Your task to perform on an android device: What's the weather going to be tomorrow? Image 0: 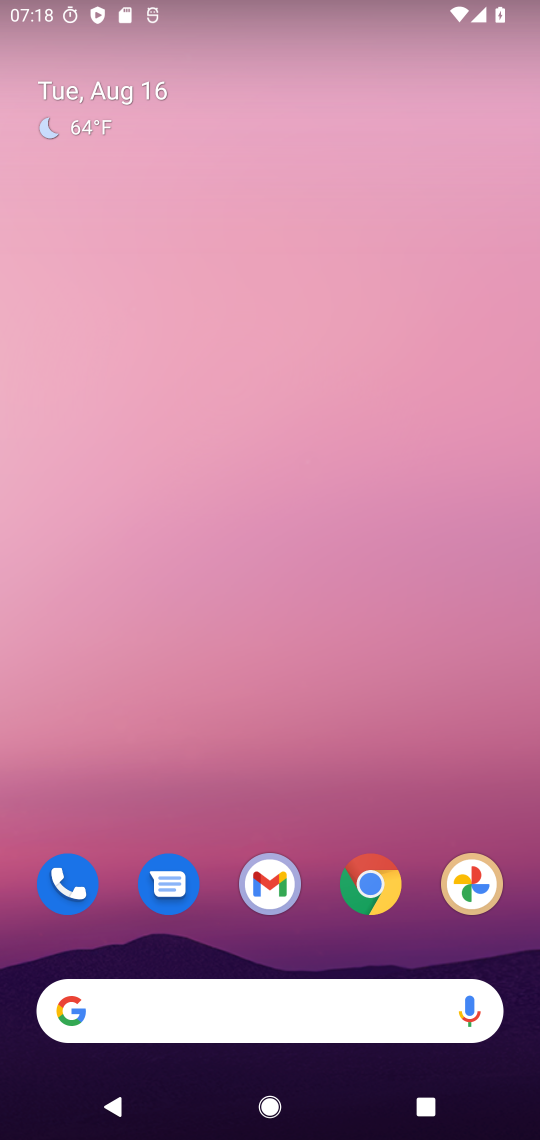
Step 0: click (62, 1016)
Your task to perform on an android device: What's the weather going to be tomorrow? Image 1: 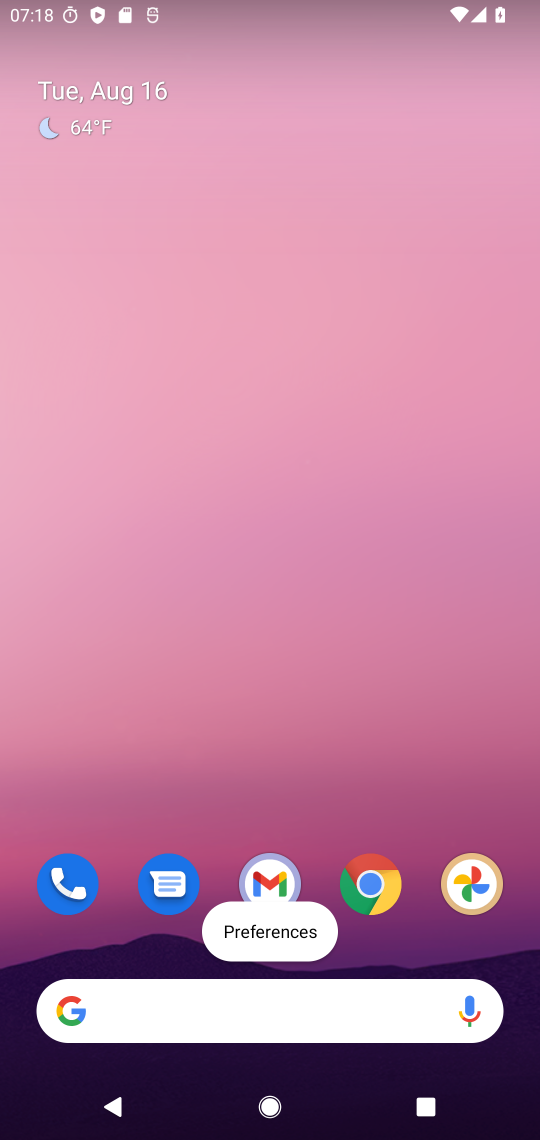
Step 1: click (62, 1015)
Your task to perform on an android device: What's the weather going to be tomorrow? Image 2: 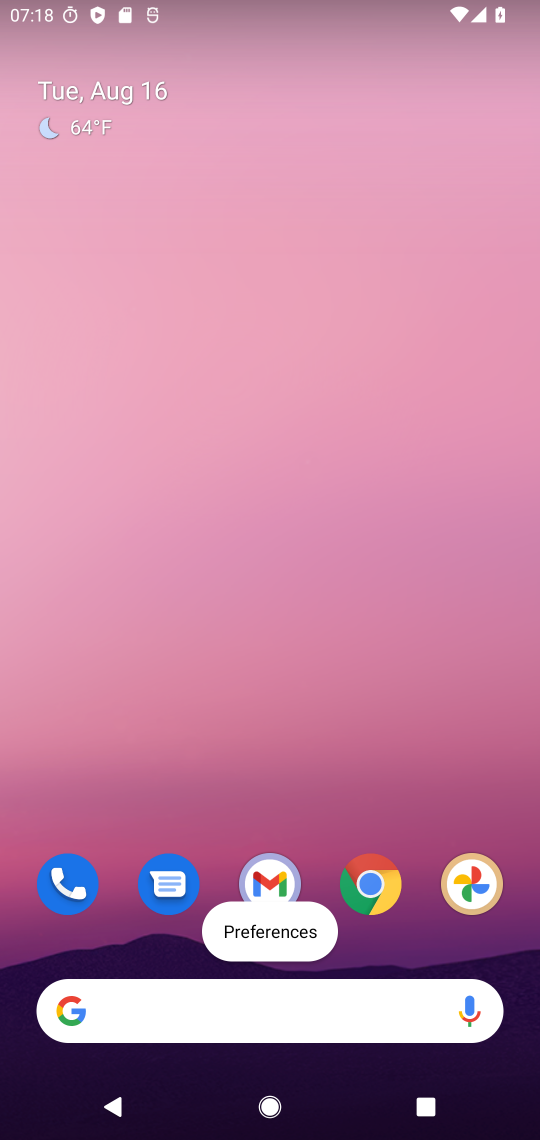
Step 2: click (59, 1006)
Your task to perform on an android device: What's the weather going to be tomorrow? Image 3: 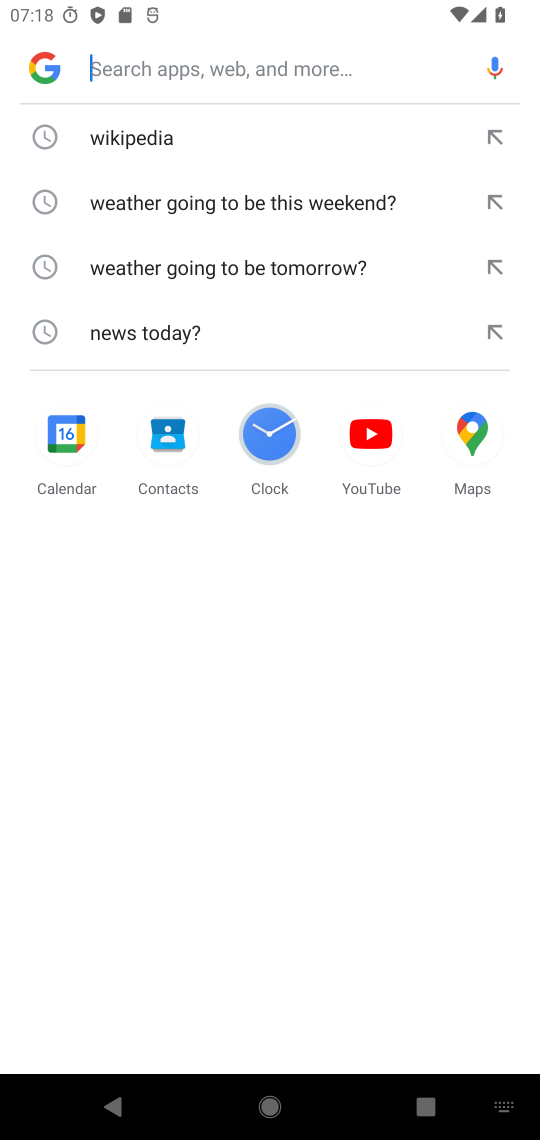
Step 3: click (243, 274)
Your task to perform on an android device: What's the weather going to be tomorrow? Image 4: 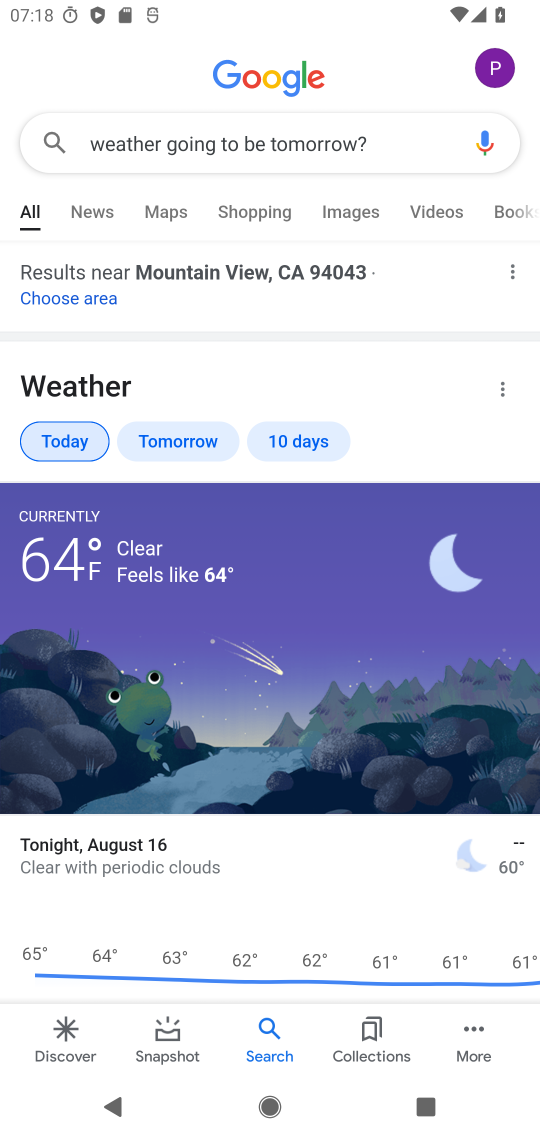
Step 4: task complete